Your task to perform on an android device: open a new tab in the chrome app Image 0: 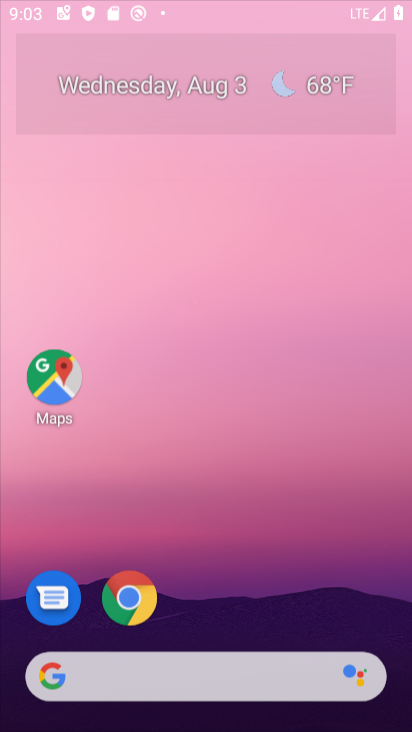
Step 0: drag from (202, 358) to (242, 27)
Your task to perform on an android device: open a new tab in the chrome app Image 1: 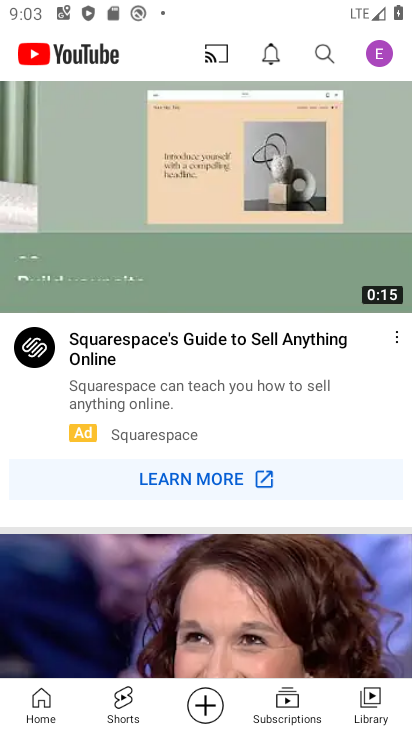
Step 1: press home button
Your task to perform on an android device: open a new tab in the chrome app Image 2: 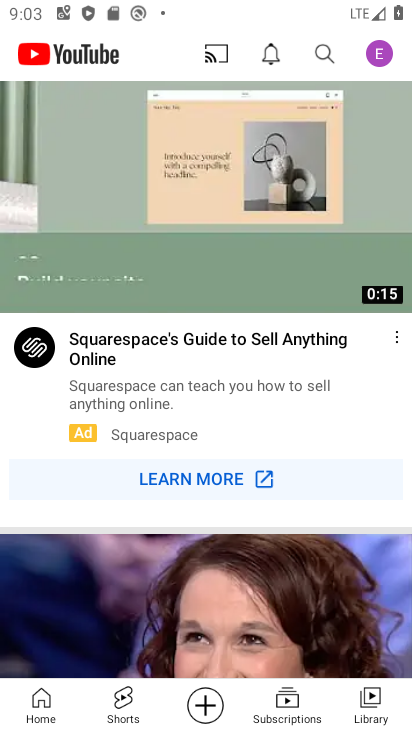
Step 2: click (411, 483)
Your task to perform on an android device: open a new tab in the chrome app Image 3: 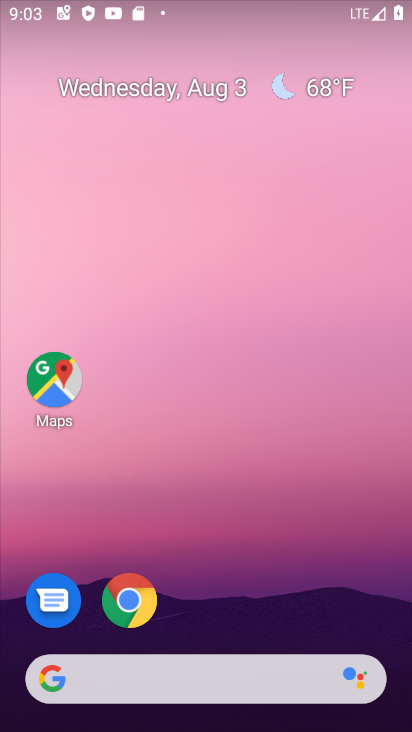
Step 3: click (120, 611)
Your task to perform on an android device: open a new tab in the chrome app Image 4: 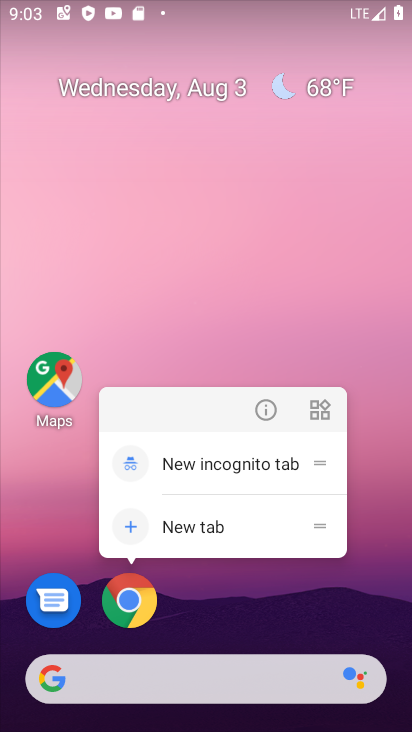
Step 4: click (130, 620)
Your task to perform on an android device: open a new tab in the chrome app Image 5: 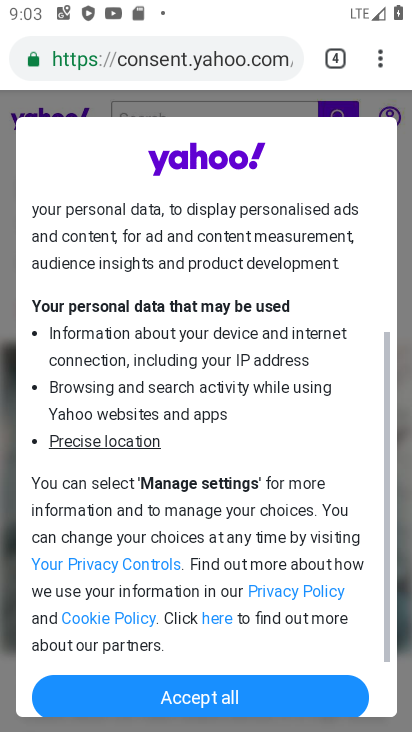
Step 5: click (381, 53)
Your task to perform on an android device: open a new tab in the chrome app Image 6: 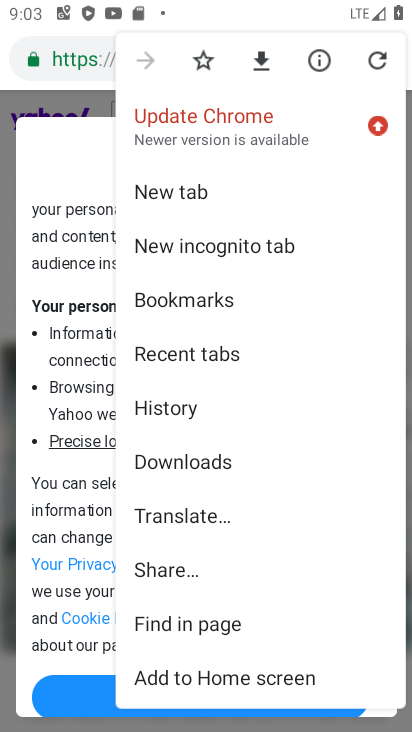
Step 6: click (193, 195)
Your task to perform on an android device: open a new tab in the chrome app Image 7: 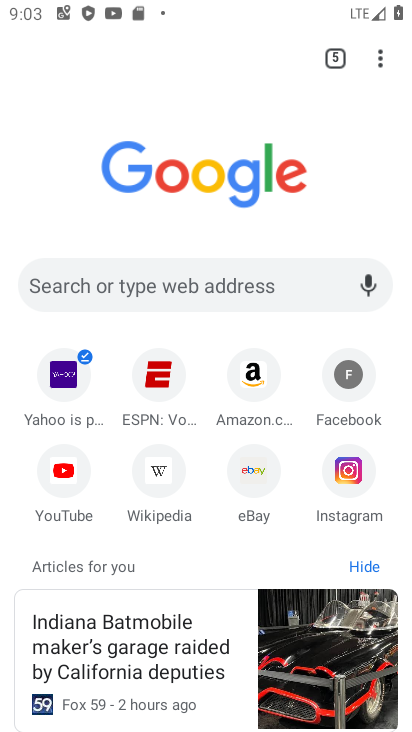
Step 7: task complete